Your task to perform on an android device: open app "Instagram" (install if not already installed) and enter user name: "nobler@yahoo.com" and password: "foraging" Image 0: 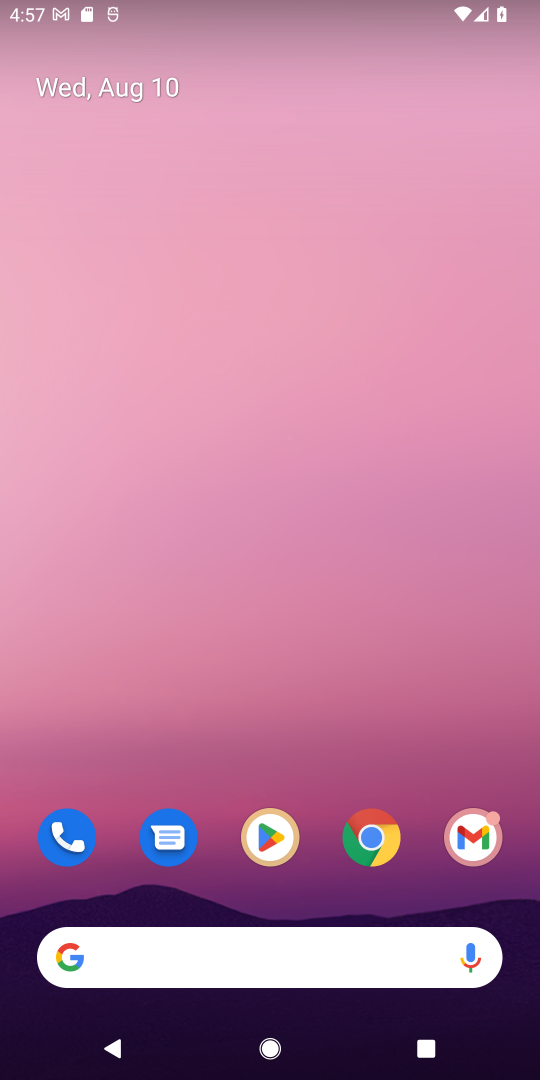
Step 0: click (272, 832)
Your task to perform on an android device: open app "Instagram" (install if not already installed) and enter user name: "nobler@yahoo.com" and password: "foraging" Image 1: 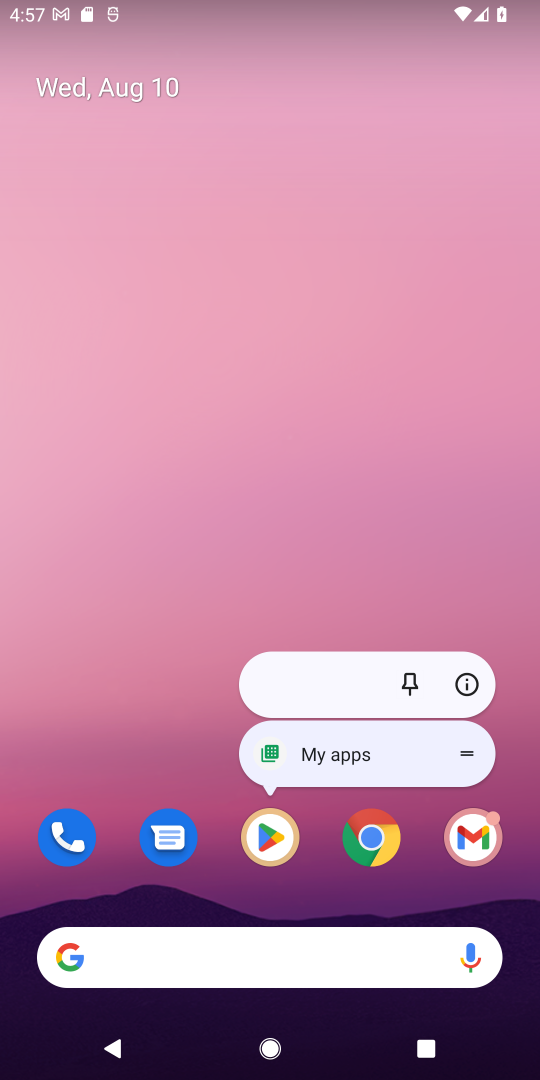
Step 1: click (272, 833)
Your task to perform on an android device: open app "Instagram" (install if not already installed) and enter user name: "nobler@yahoo.com" and password: "foraging" Image 2: 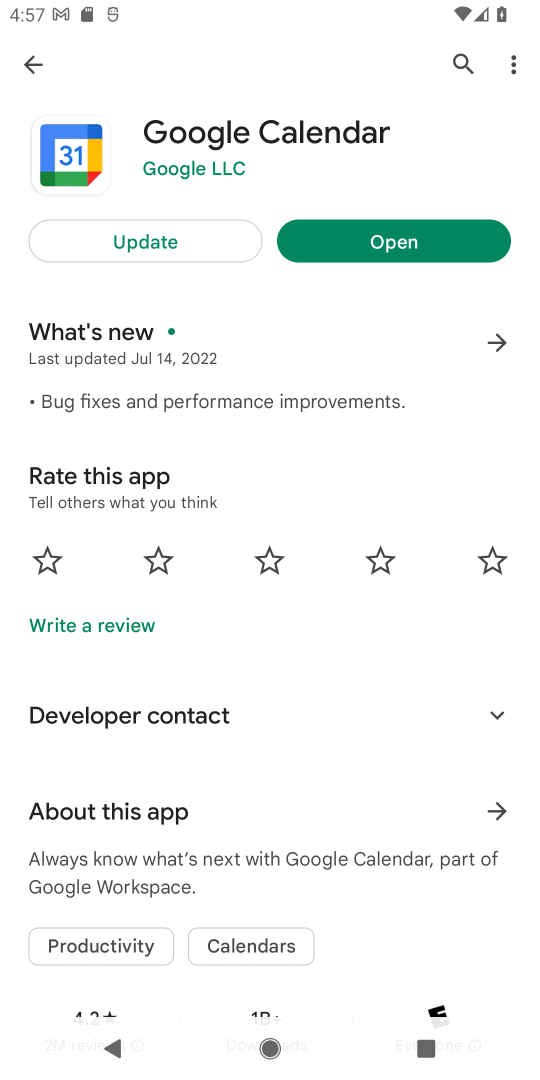
Step 2: click (458, 61)
Your task to perform on an android device: open app "Instagram" (install if not already installed) and enter user name: "nobler@yahoo.com" and password: "foraging" Image 3: 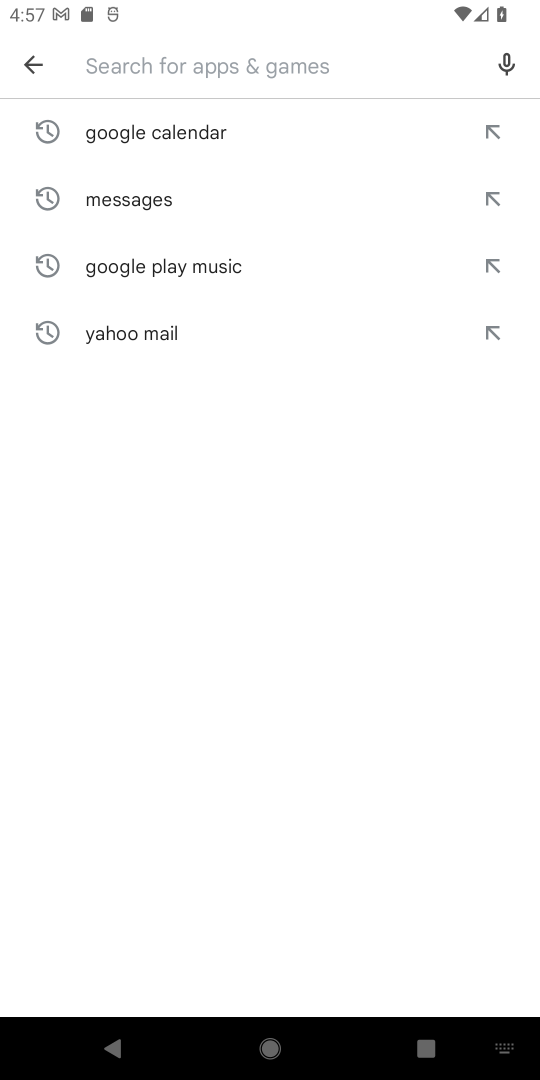
Step 3: type "Instagram"
Your task to perform on an android device: open app "Instagram" (install if not already installed) and enter user name: "nobler@yahoo.com" and password: "foraging" Image 4: 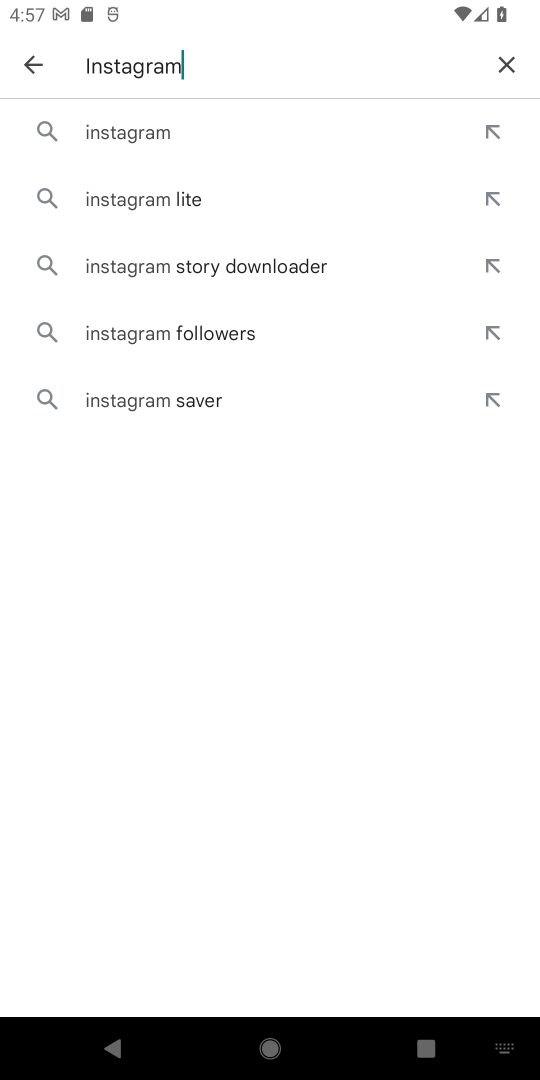
Step 4: click (131, 127)
Your task to perform on an android device: open app "Instagram" (install if not already installed) and enter user name: "nobler@yahoo.com" and password: "foraging" Image 5: 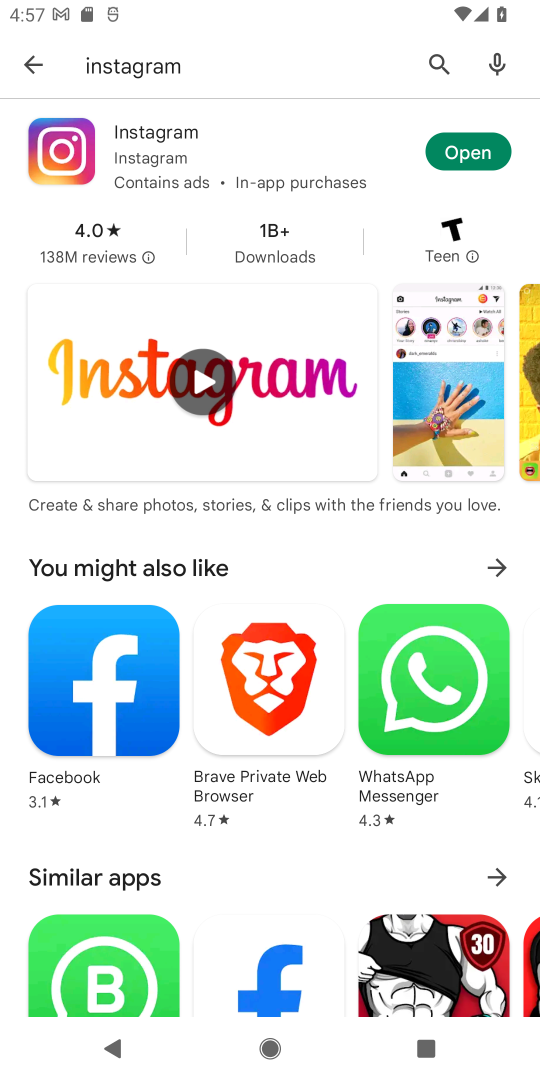
Step 5: click (480, 150)
Your task to perform on an android device: open app "Instagram" (install if not already installed) and enter user name: "nobler@yahoo.com" and password: "foraging" Image 6: 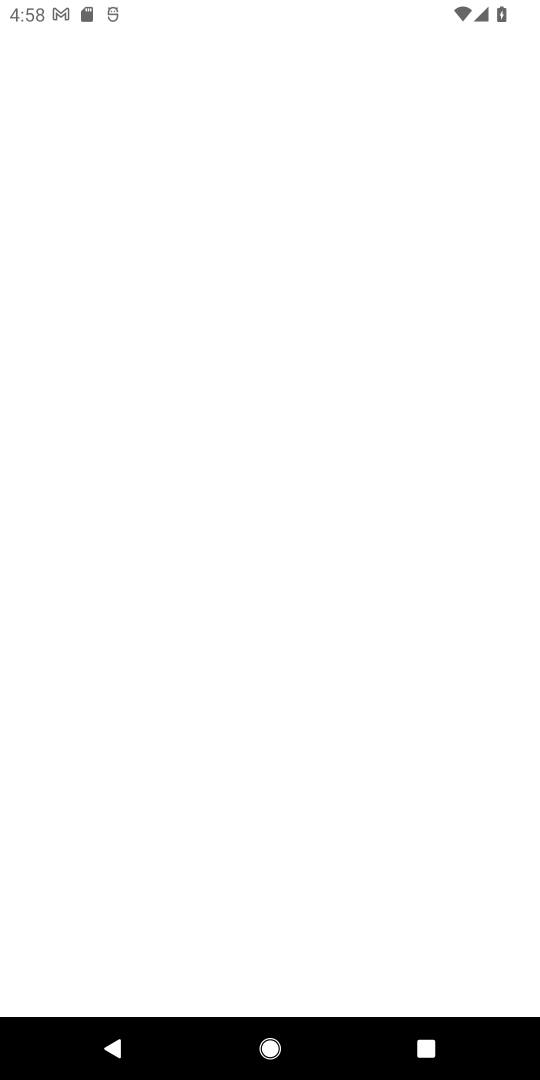
Step 6: task complete